Your task to perform on an android device: Go to location settings Image 0: 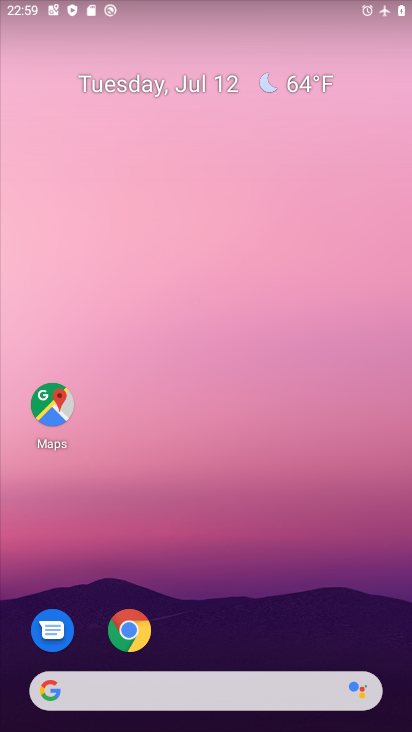
Step 0: drag from (188, 650) to (147, 227)
Your task to perform on an android device: Go to location settings Image 1: 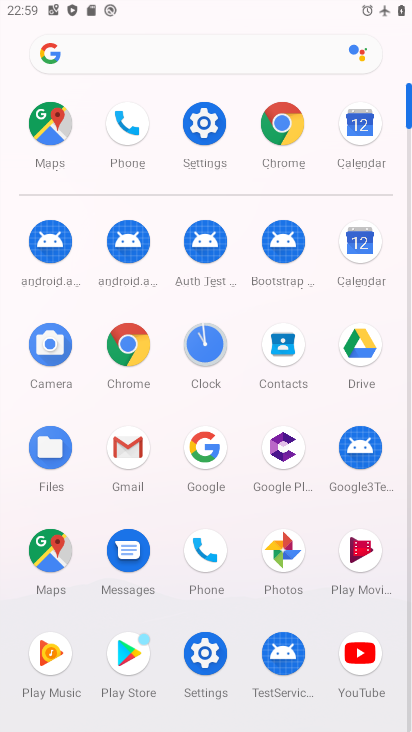
Step 1: click (198, 671)
Your task to perform on an android device: Go to location settings Image 2: 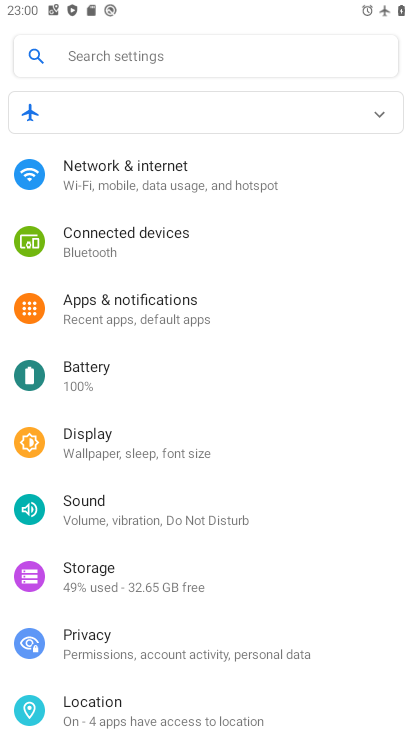
Step 2: click (118, 699)
Your task to perform on an android device: Go to location settings Image 3: 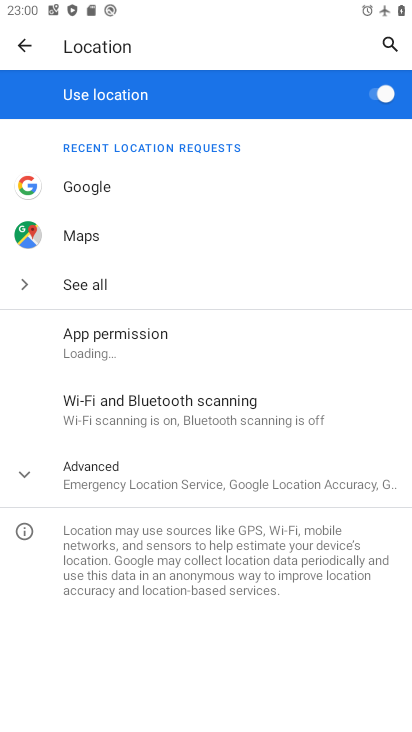
Step 3: click (111, 471)
Your task to perform on an android device: Go to location settings Image 4: 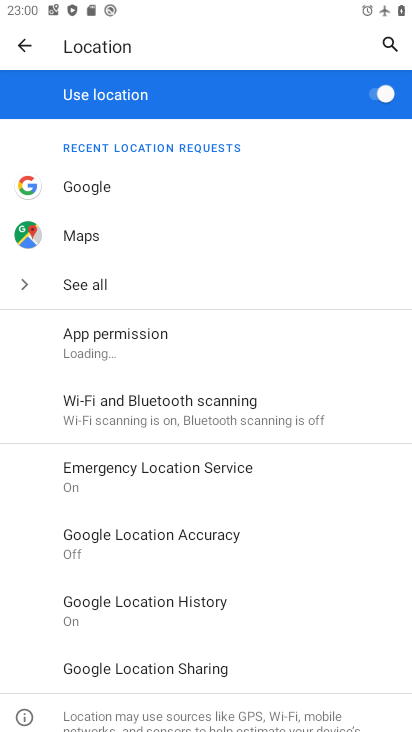
Step 4: task complete